Your task to perform on an android device: Open calendar and show me the third week of next month Image 0: 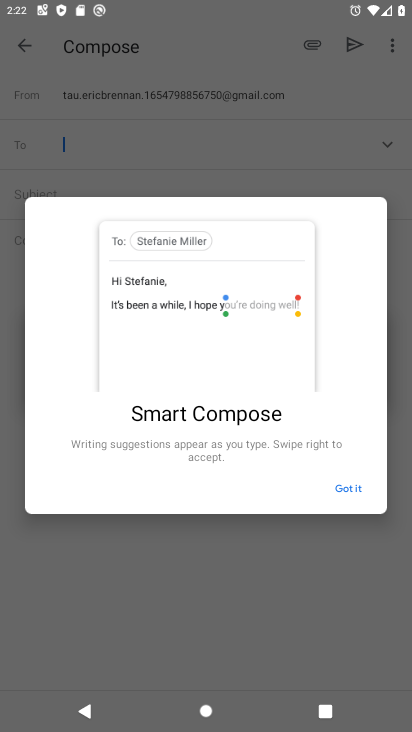
Step 0: press home button
Your task to perform on an android device: Open calendar and show me the third week of next month Image 1: 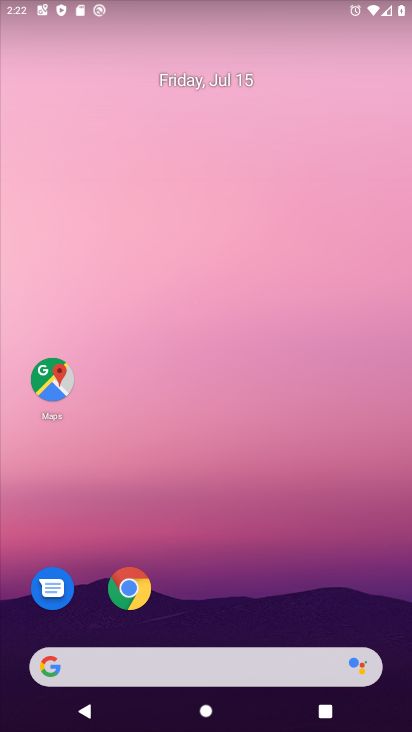
Step 1: drag from (170, 657) to (269, 123)
Your task to perform on an android device: Open calendar and show me the third week of next month Image 2: 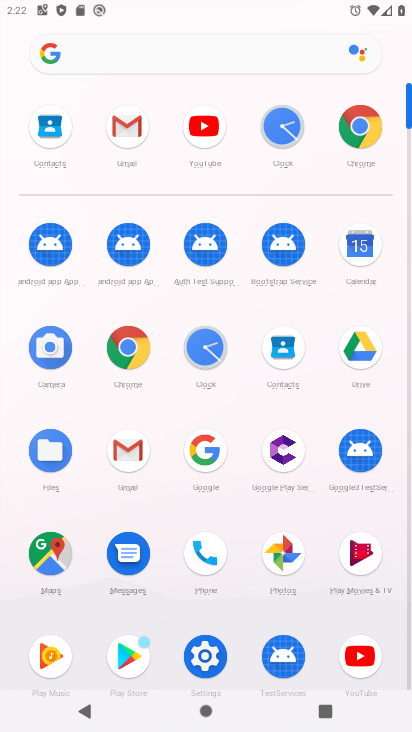
Step 2: click (360, 248)
Your task to perform on an android device: Open calendar and show me the third week of next month Image 3: 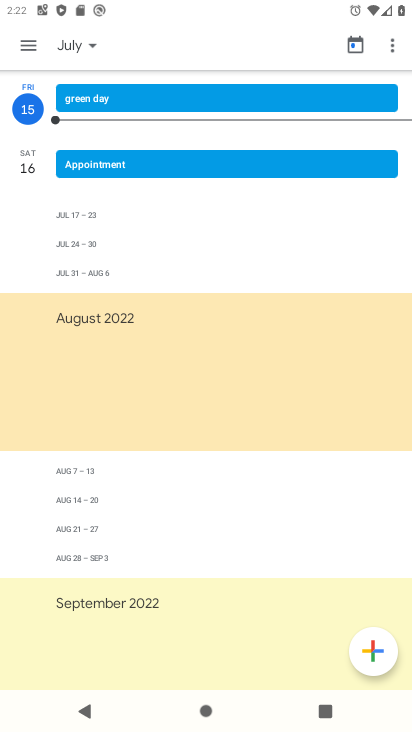
Step 3: click (358, 45)
Your task to perform on an android device: Open calendar and show me the third week of next month Image 4: 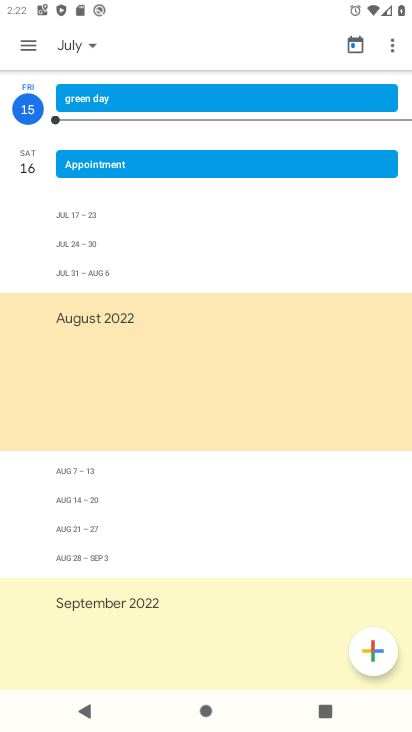
Step 4: click (93, 46)
Your task to perform on an android device: Open calendar and show me the third week of next month Image 5: 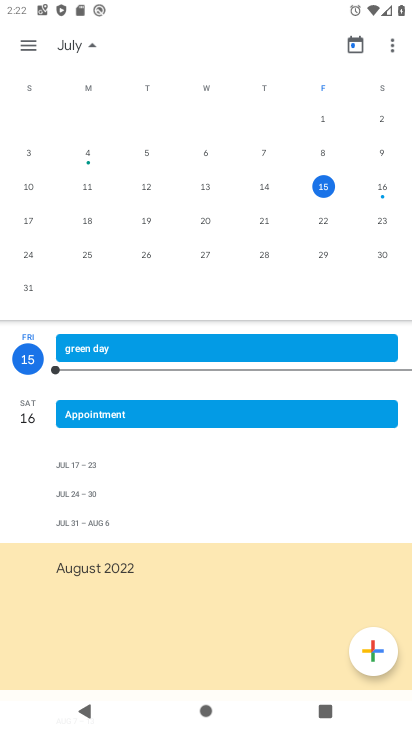
Step 5: drag from (359, 204) to (0, 246)
Your task to perform on an android device: Open calendar and show me the third week of next month Image 6: 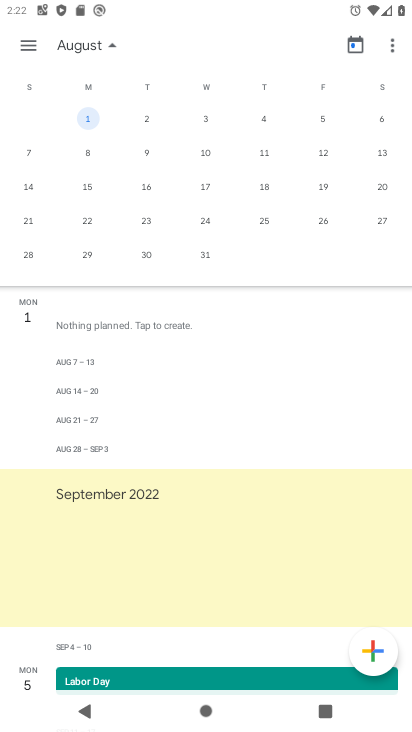
Step 6: click (86, 190)
Your task to perform on an android device: Open calendar and show me the third week of next month Image 7: 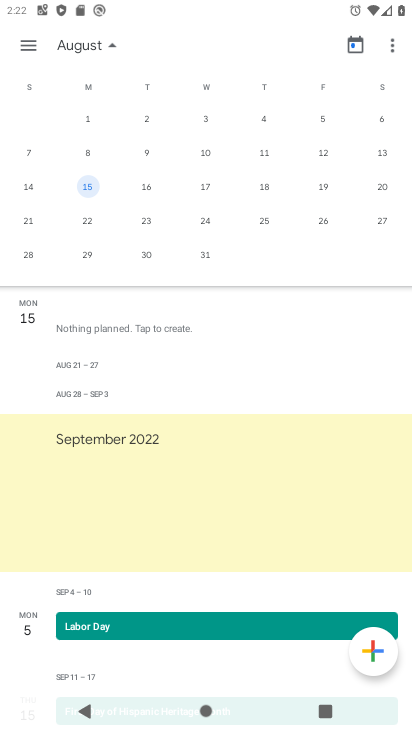
Step 7: click (29, 40)
Your task to perform on an android device: Open calendar and show me the third week of next month Image 8: 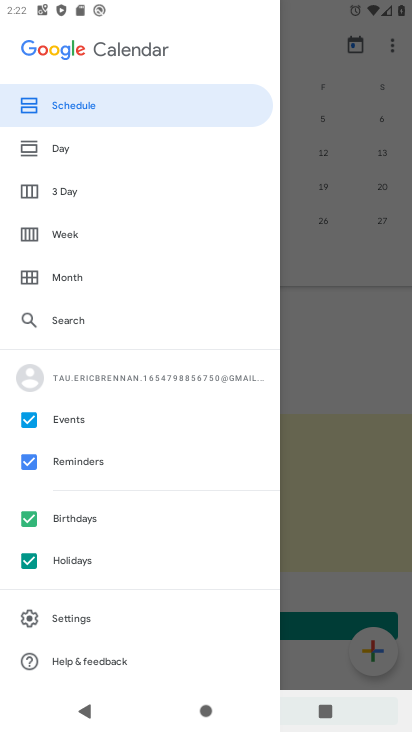
Step 8: click (42, 230)
Your task to perform on an android device: Open calendar and show me the third week of next month Image 9: 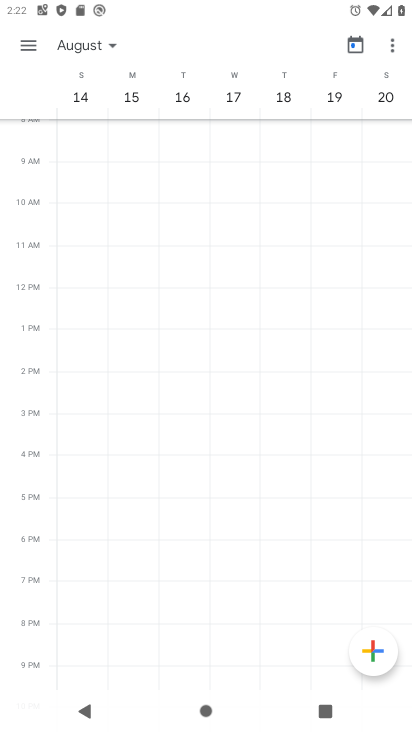
Step 9: task complete